Your task to perform on an android device: open a bookmark in the chrome app Image 0: 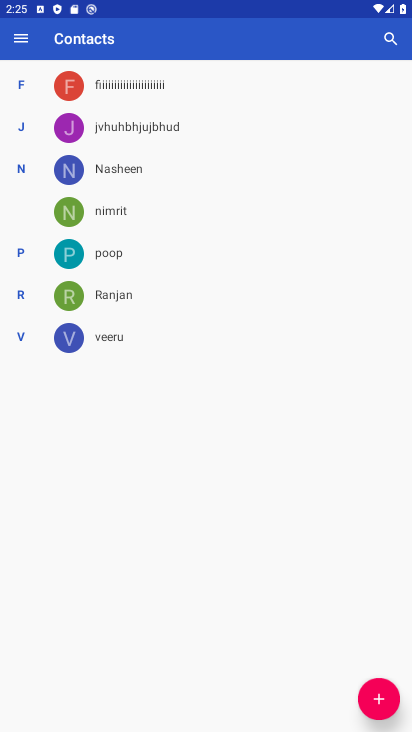
Step 0: press back button
Your task to perform on an android device: open a bookmark in the chrome app Image 1: 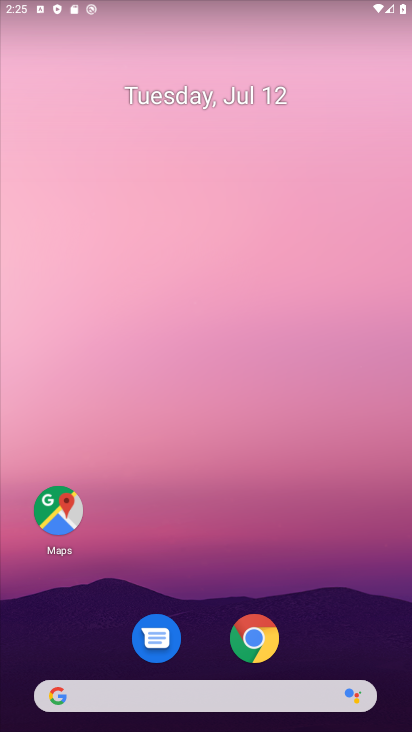
Step 1: click (242, 642)
Your task to perform on an android device: open a bookmark in the chrome app Image 2: 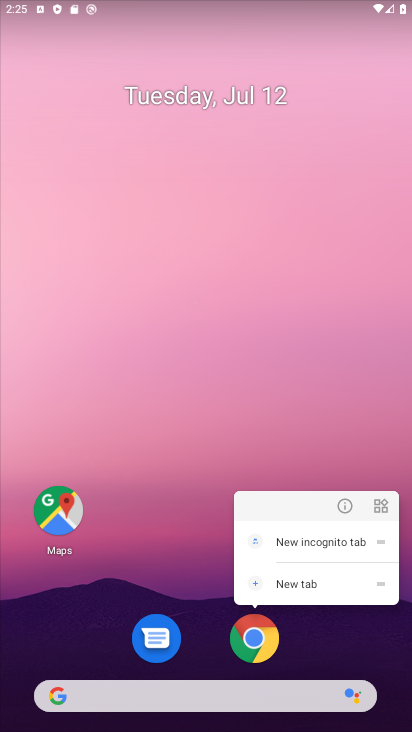
Step 2: click (257, 634)
Your task to perform on an android device: open a bookmark in the chrome app Image 3: 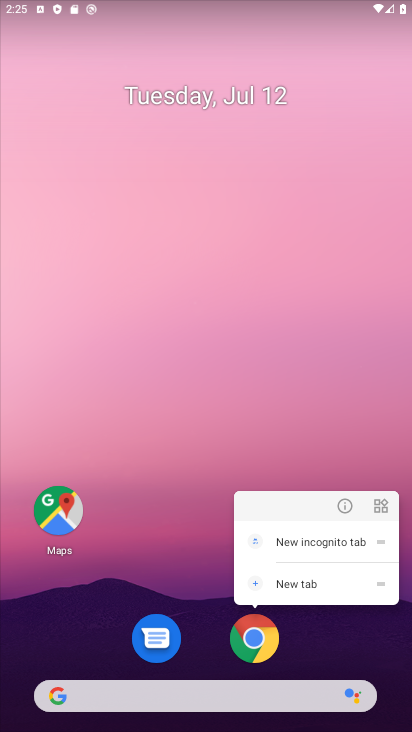
Step 3: click (262, 637)
Your task to perform on an android device: open a bookmark in the chrome app Image 4: 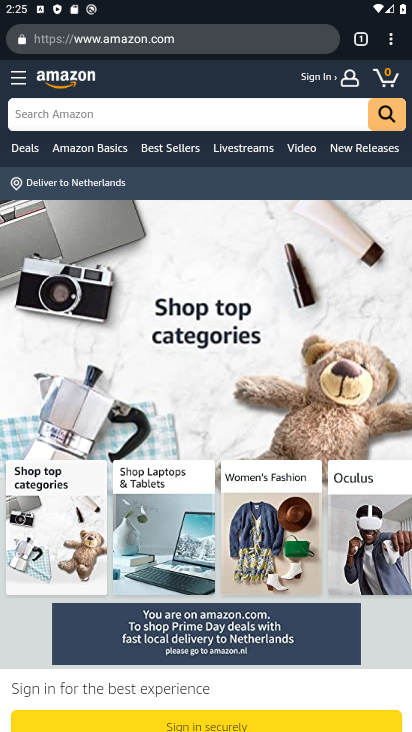
Step 4: drag from (382, 32) to (266, 145)
Your task to perform on an android device: open a bookmark in the chrome app Image 5: 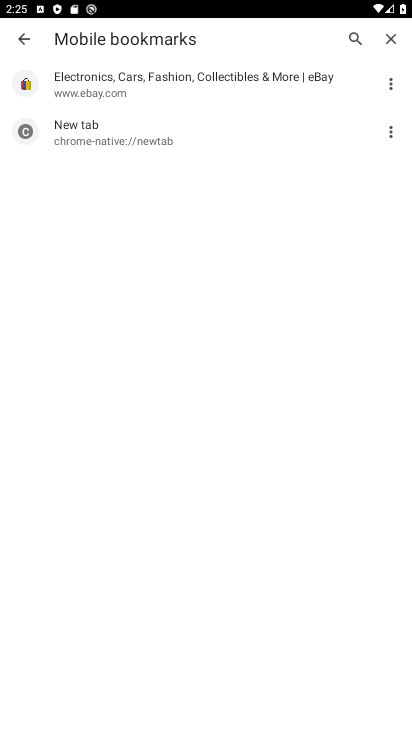
Step 5: click (82, 120)
Your task to perform on an android device: open a bookmark in the chrome app Image 6: 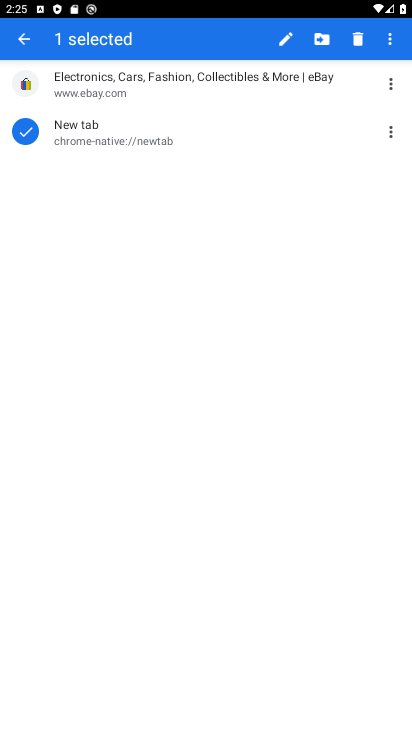
Step 6: click (85, 147)
Your task to perform on an android device: open a bookmark in the chrome app Image 7: 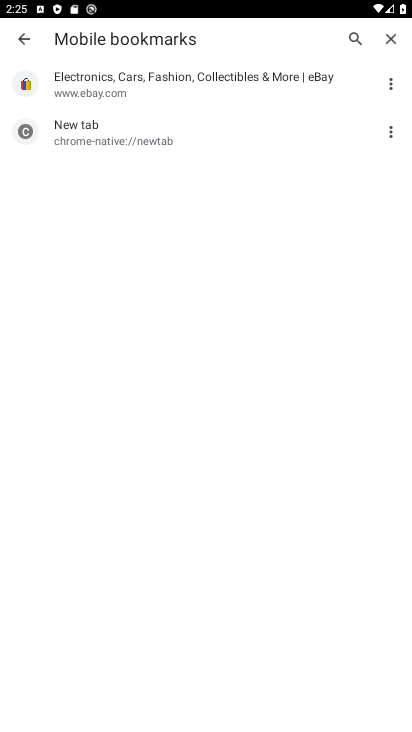
Step 7: click (82, 69)
Your task to perform on an android device: open a bookmark in the chrome app Image 8: 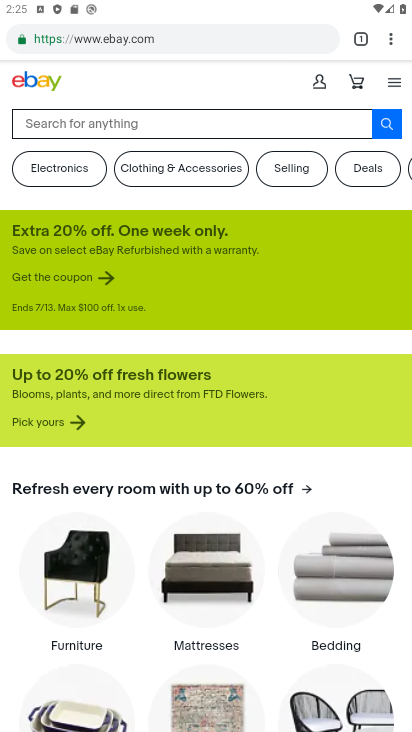
Step 8: task complete